Your task to perform on an android device: turn off smart reply in the gmail app Image 0: 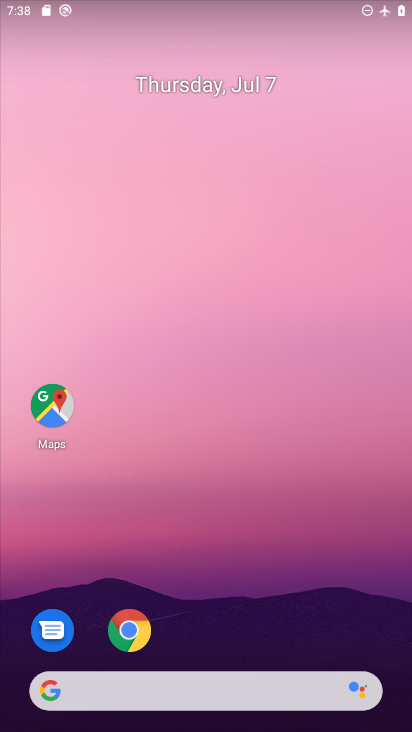
Step 0: drag from (248, 620) to (219, 152)
Your task to perform on an android device: turn off smart reply in the gmail app Image 1: 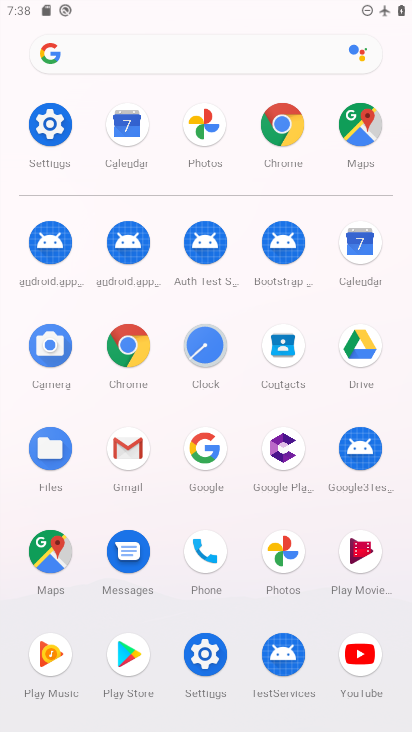
Step 1: click (121, 444)
Your task to perform on an android device: turn off smart reply in the gmail app Image 2: 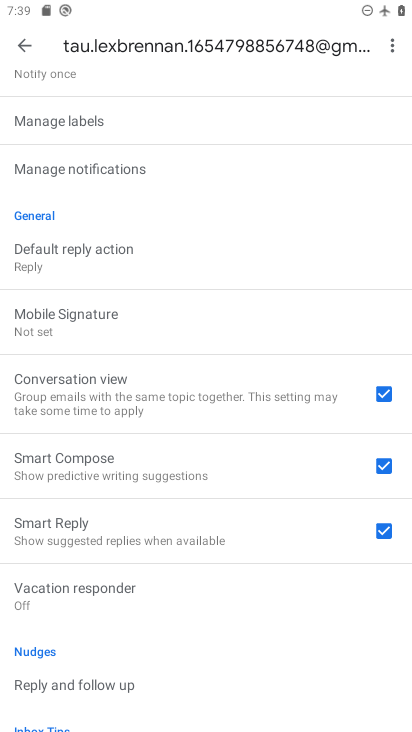
Step 2: click (388, 534)
Your task to perform on an android device: turn off smart reply in the gmail app Image 3: 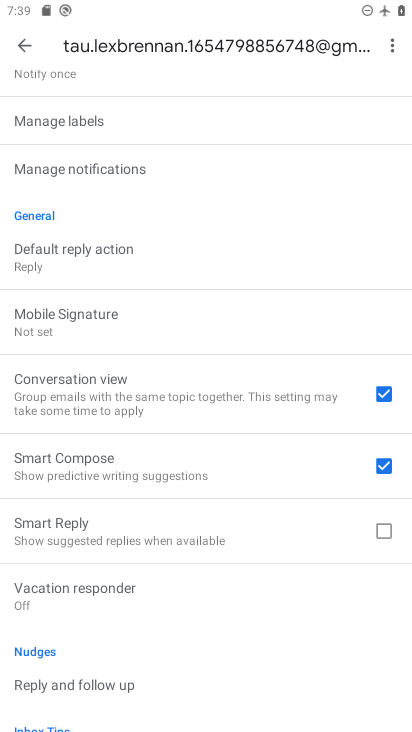
Step 3: task complete